Your task to perform on an android device: Open my contact list Image 0: 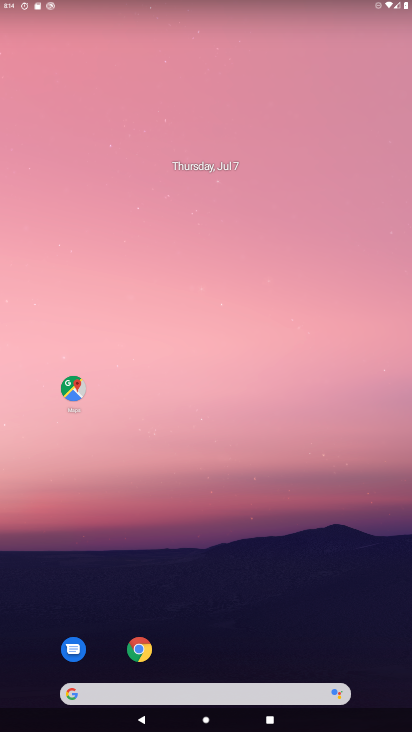
Step 0: drag from (237, 628) to (245, 197)
Your task to perform on an android device: Open my contact list Image 1: 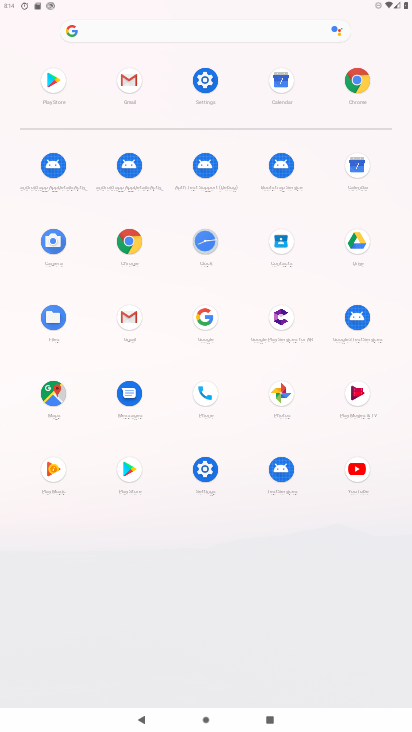
Step 1: click (277, 242)
Your task to perform on an android device: Open my contact list Image 2: 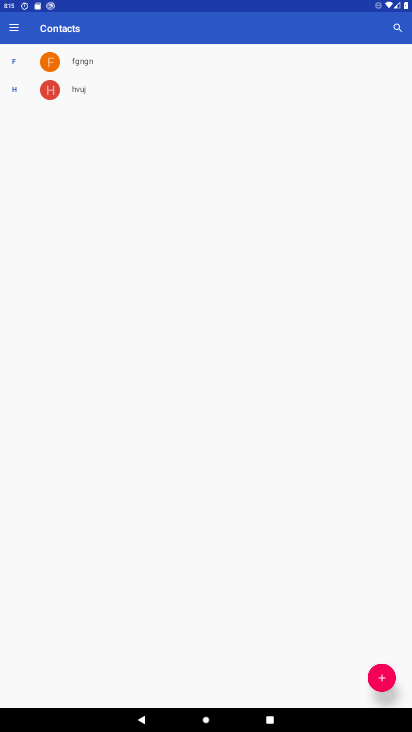
Step 2: task complete